Your task to perform on an android device: Open internet settings Image 0: 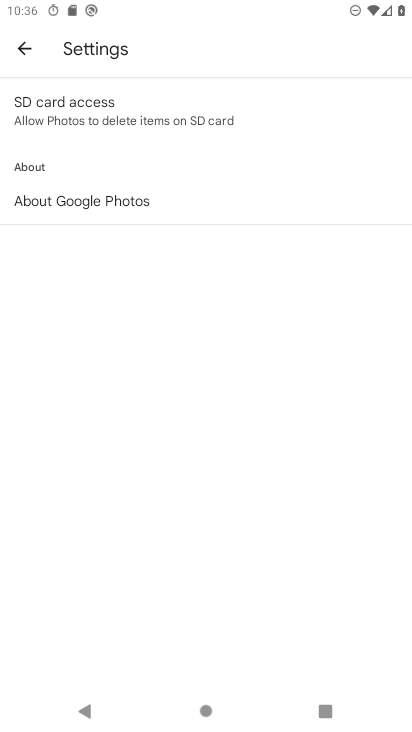
Step 0: press home button
Your task to perform on an android device: Open internet settings Image 1: 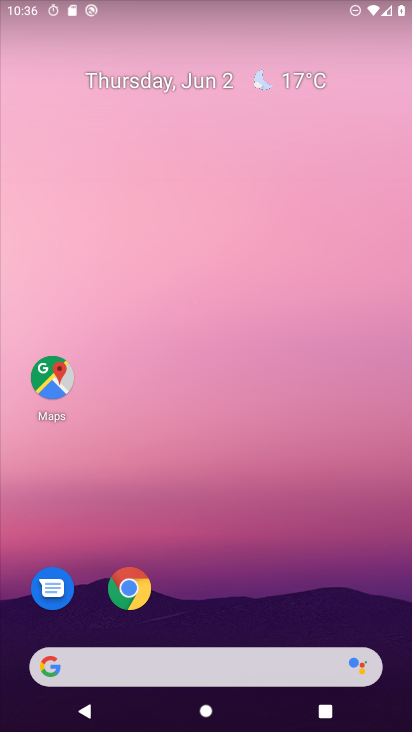
Step 1: drag from (221, 434) to (239, 27)
Your task to perform on an android device: Open internet settings Image 2: 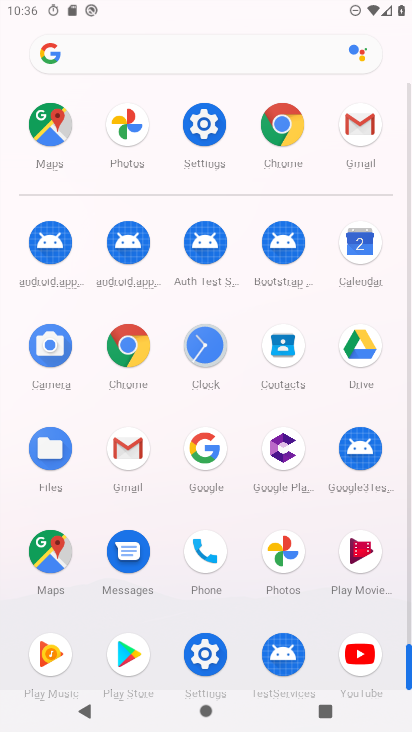
Step 2: click (215, 119)
Your task to perform on an android device: Open internet settings Image 3: 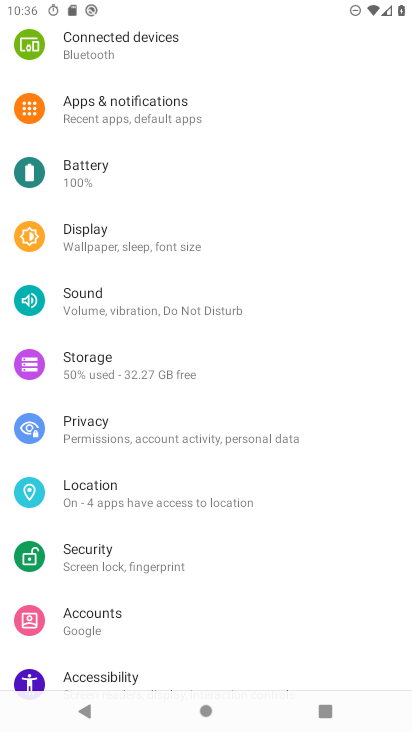
Step 3: drag from (219, 118) to (100, 629)
Your task to perform on an android device: Open internet settings Image 4: 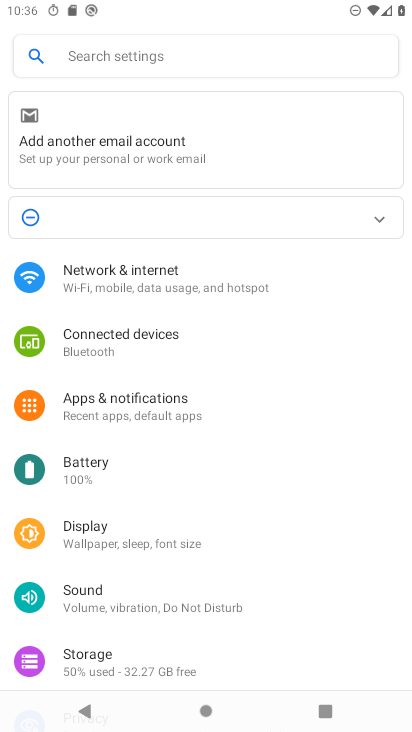
Step 4: drag from (153, 345) to (96, 666)
Your task to perform on an android device: Open internet settings Image 5: 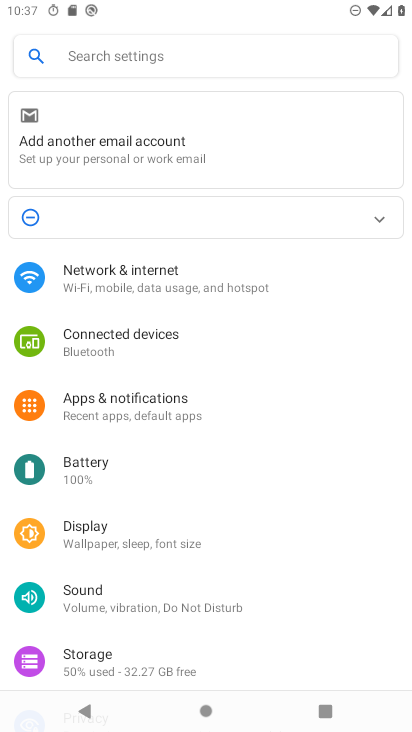
Step 5: click (198, 292)
Your task to perform on an android device: Open internet settings Image 6: 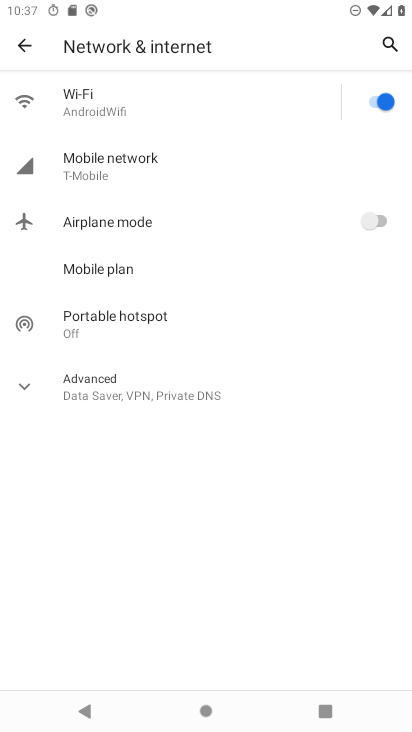
Step 6: click (161, 169)
Your task to perform on an android device: Open internet settings Image 7: 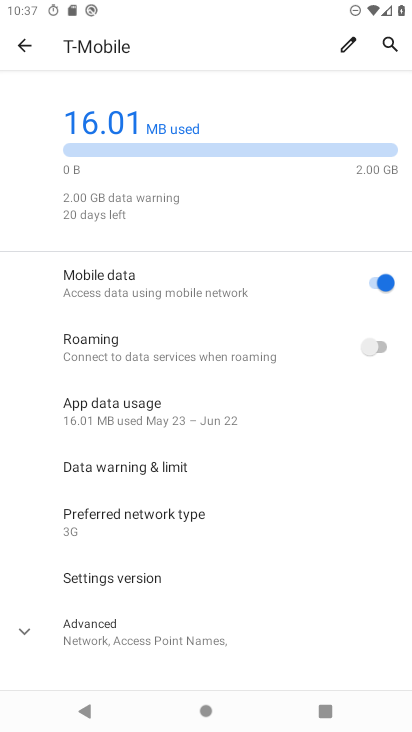
Step 7: task complete